Your task to perform on an android device: Open network settings Image 0: 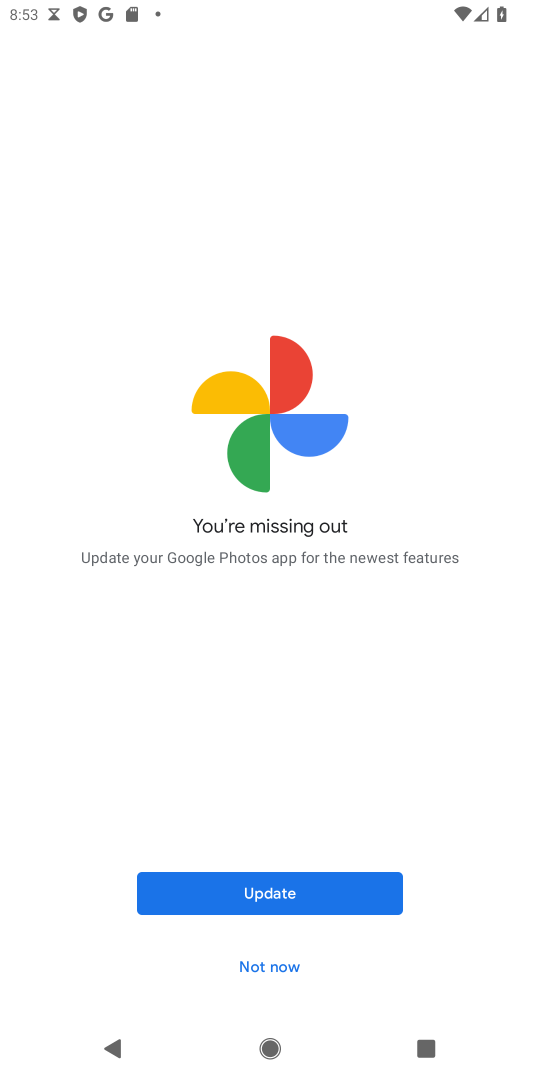
Step 0: press home button
Your task to perform on an android device: Open network settings Image 1: 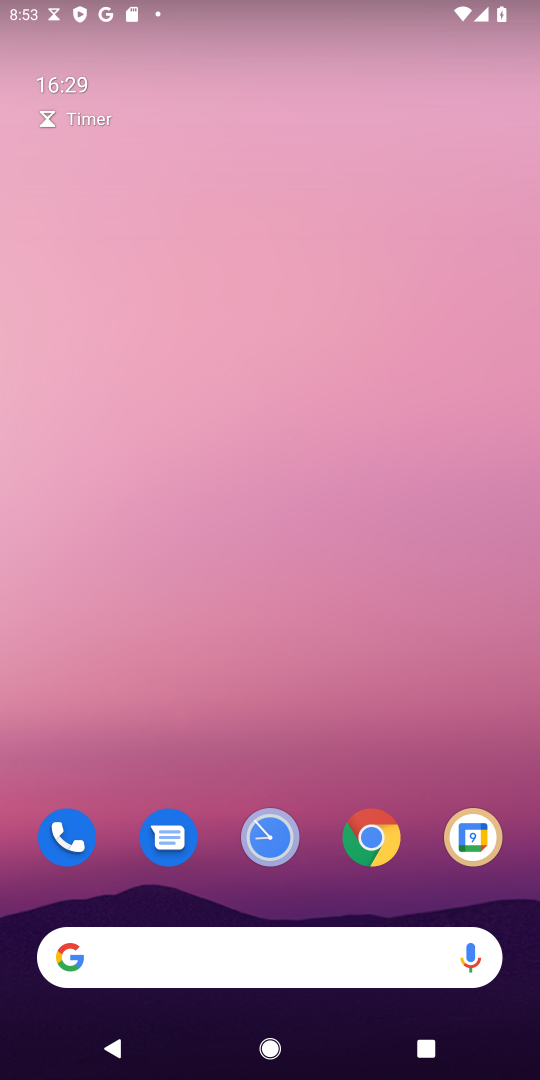
Step 1: drag from (313, 864) to (276, 45)
Your task to perform on an android device: Open network settings Image 2: 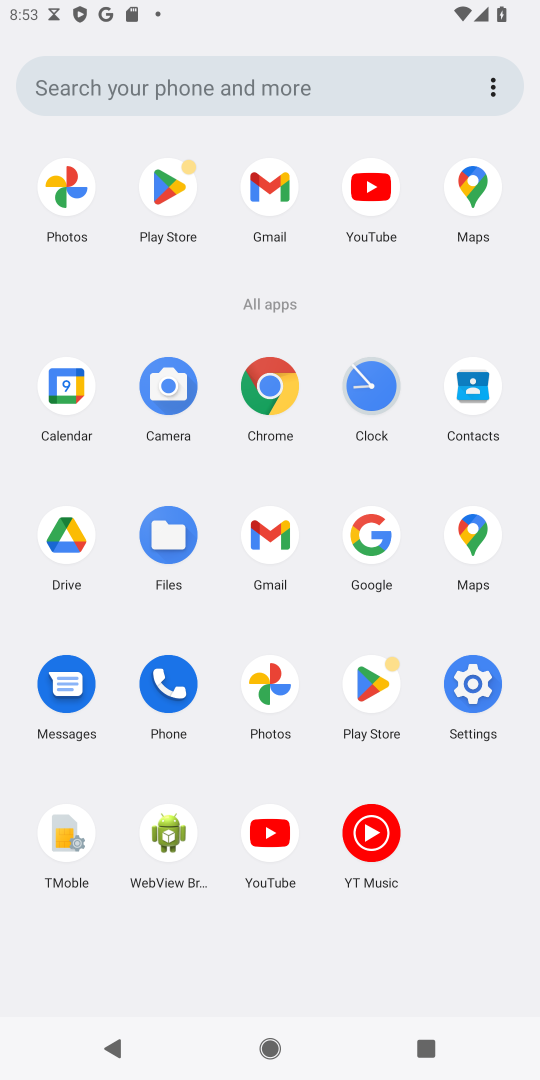
Step 2: click (479, 687)
Your task to perform on an android device: Open network settings Image 3: 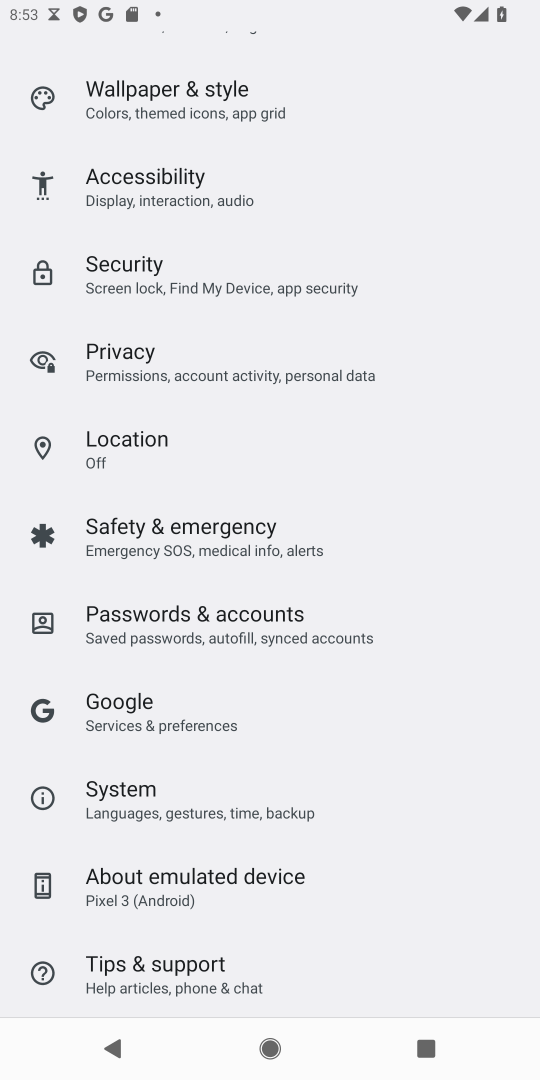
Step 3: drag from (153, 182) to (179, 684)
Your task to perform on an android device: Open network settings Image 4: 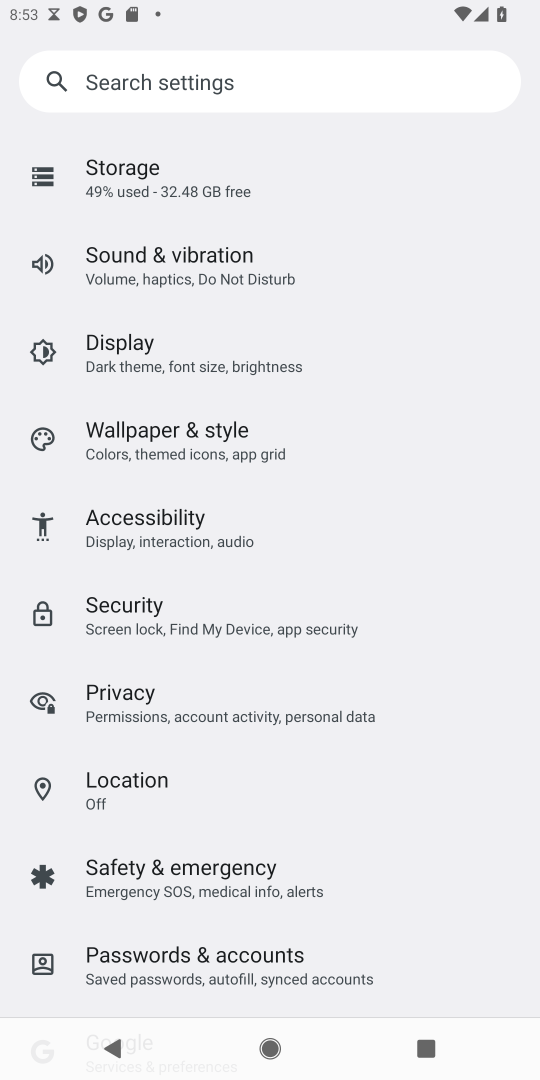
Step 4: drag from (170, 202) to (191, 758)
Your task to perform on an android device: Open network settings Image 5: 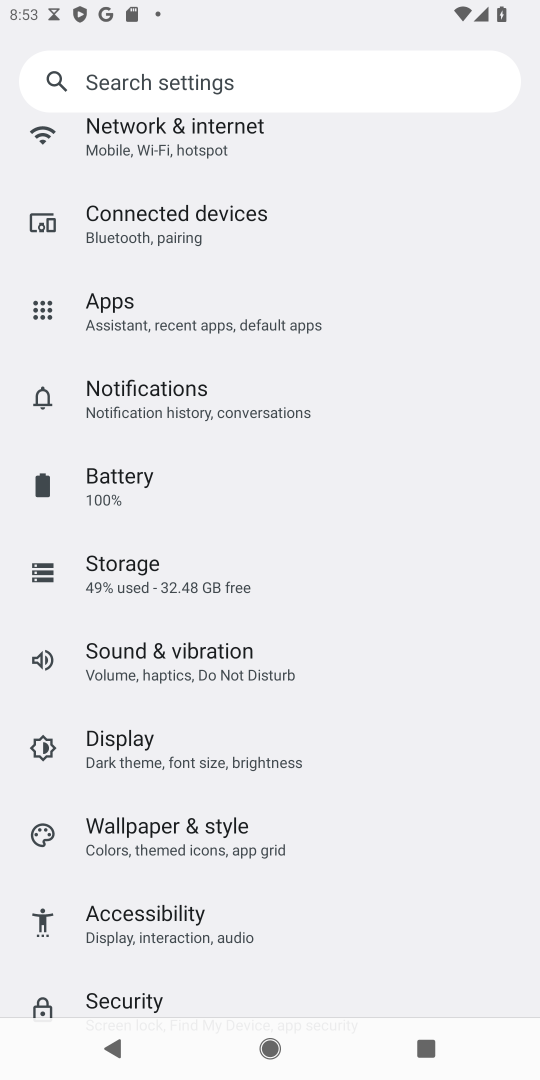
Step 5: drag from (134, 201) to (171, 788)
Your task to perform on an android device: Open network settings Image 6: 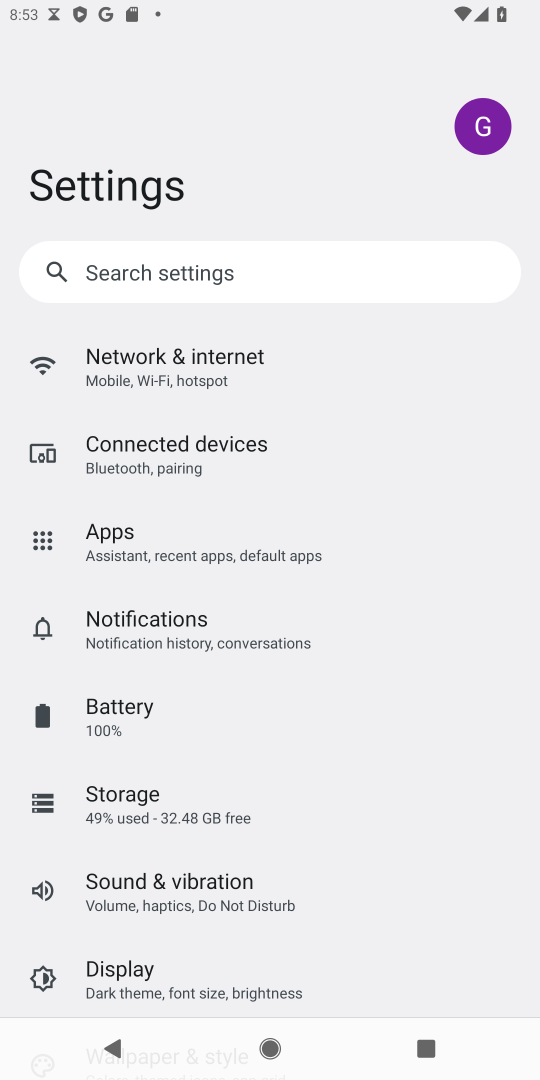
Step 6: click (151, 374)
Your task to perform on an android device: Open network settings Image 7: 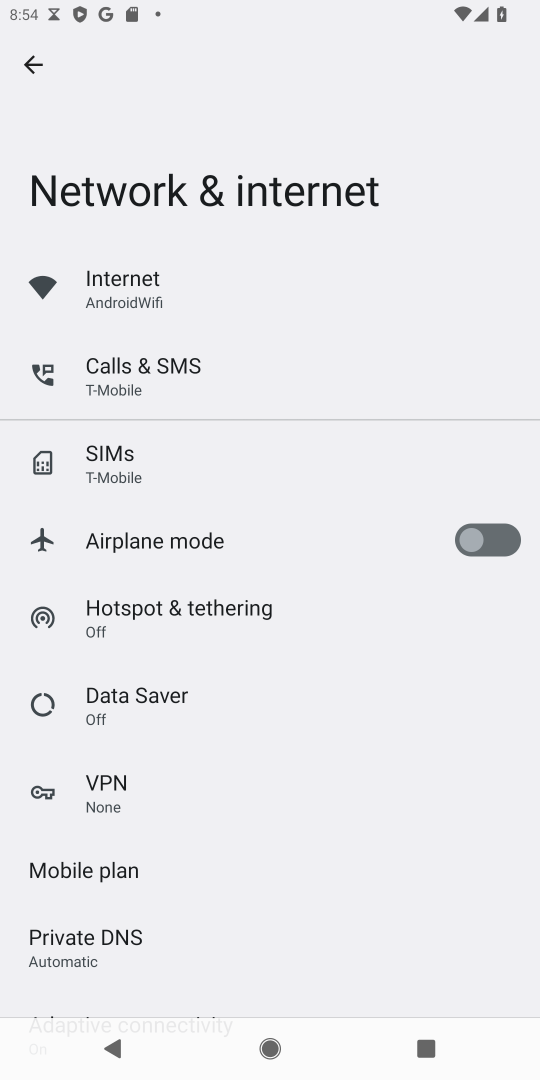
Step 7: click (130, 298)
Your task to perform on an android device: Open network settings Image 8: 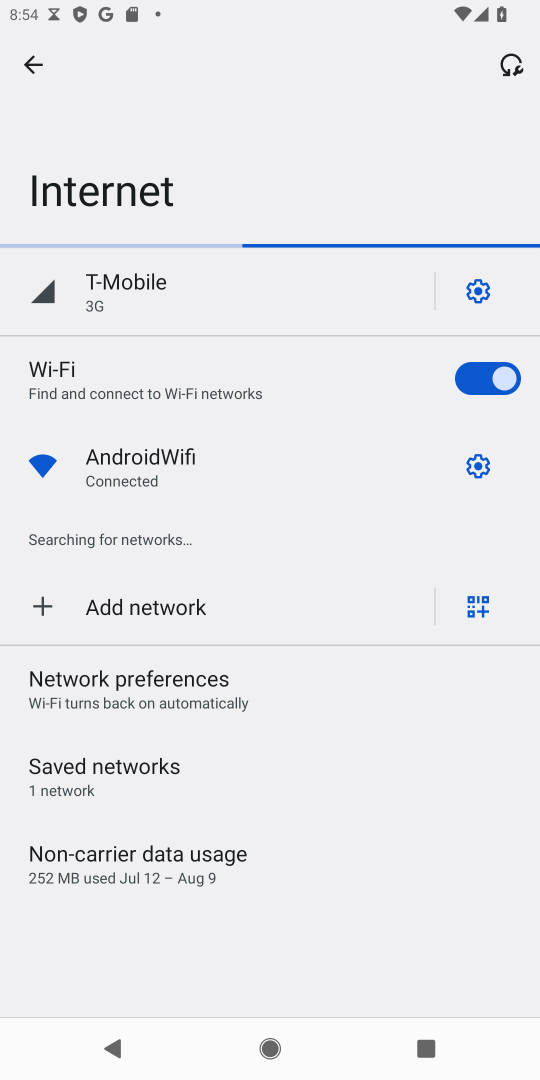
Step 8: task complete